Your task to perform on an android device: Open Amazon Image 0: 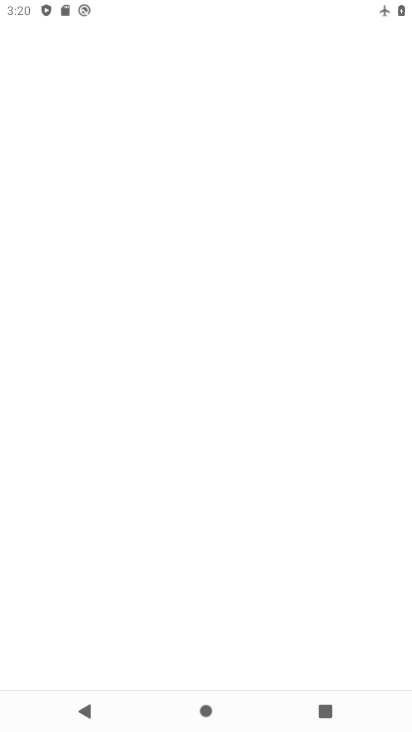
Step 0: drag from (155, 670) to (168, 170)
Your task to perform on an android device: Open Amazon Image 1: 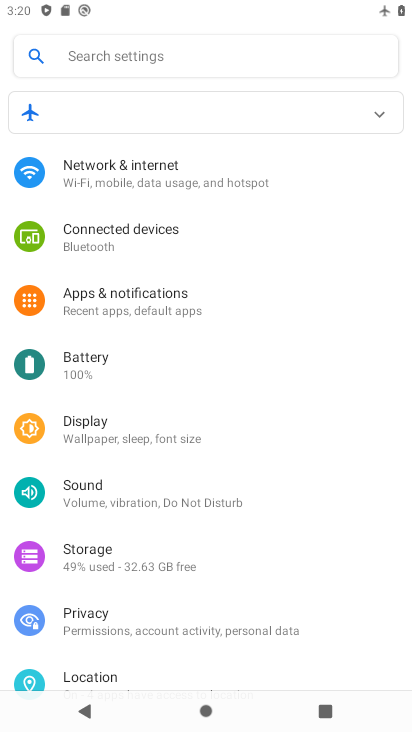
Step 1: press home button
Your task to perform on an android device: Open Amazon Image 2: 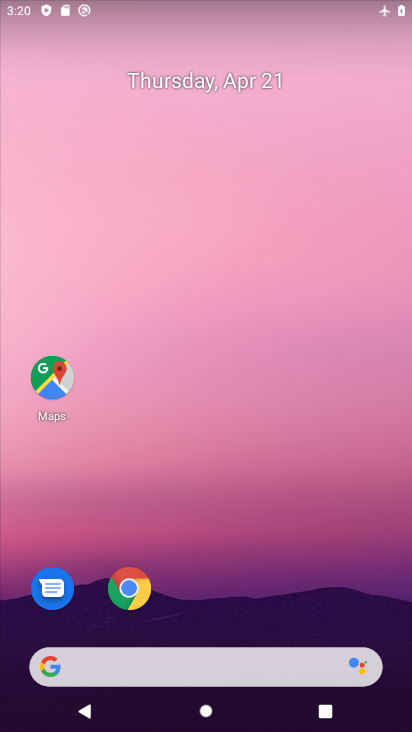
Step 2: click (125, 571)
Your task to perform on an android device: Open Amazon Image 3: 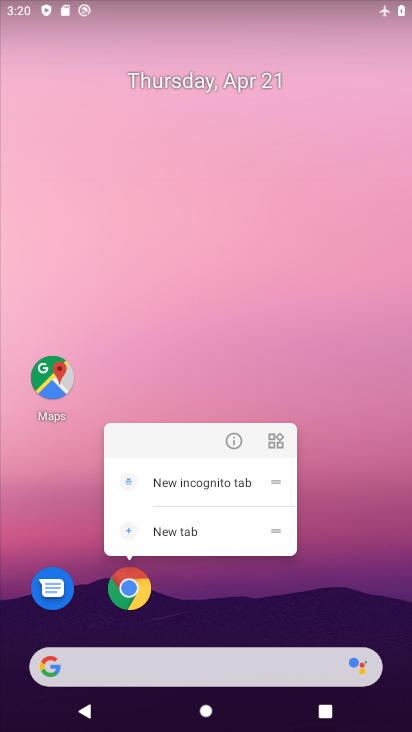
Step 3: click (353, 628)
Your task to perform on an android device: Open Amazon Image 4: 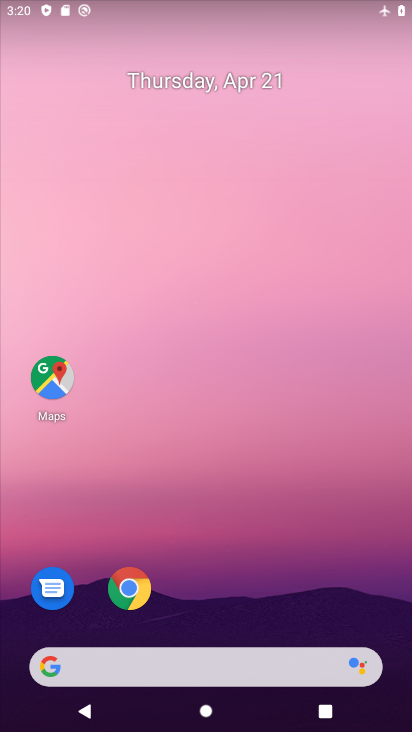
Step 4: click (147, 602)
Your task to perform on an android device: Open Amazon Image 5: 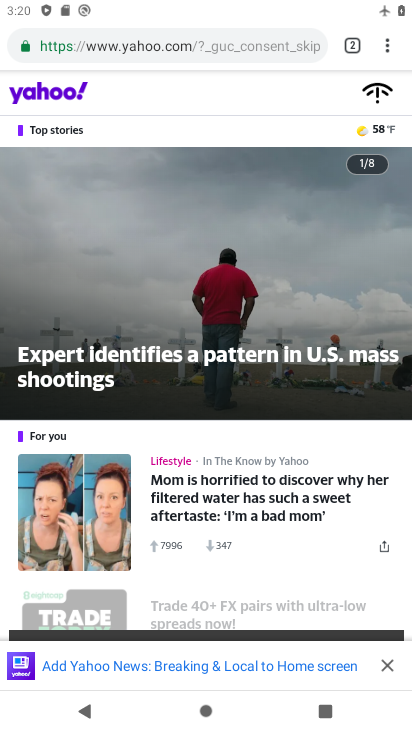
Step 5: click (265, 45)
Your task to perform on an android device: Open Amazon Image 6: 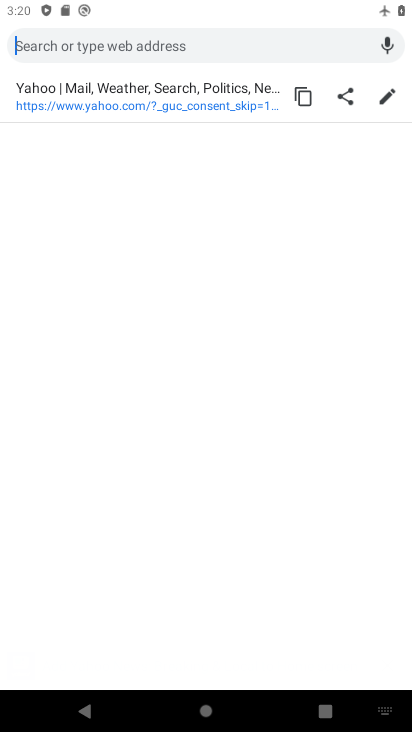
Step 6: type "amazon"
Your task to perform on an android device: Open Amazon Image 7: 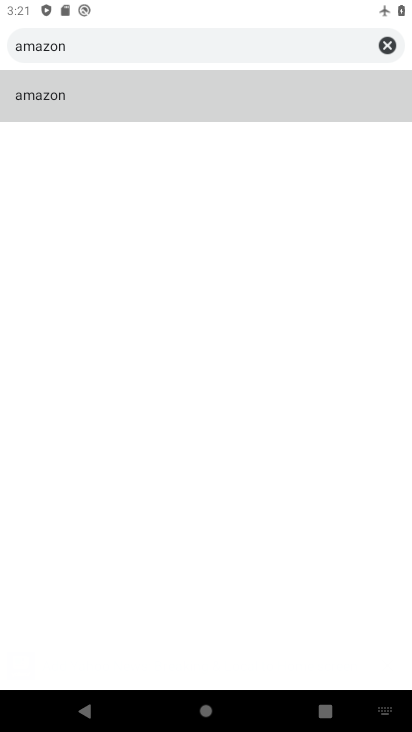
Step 7: click (110, 103)
Your task to perform on an android device: Open Amazon Image 8: 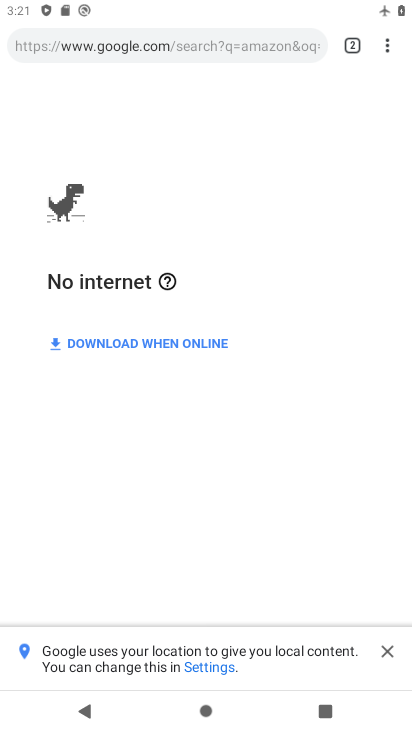
Step 8: task complete